Your task to perform on an android device: add a contact Image 0: 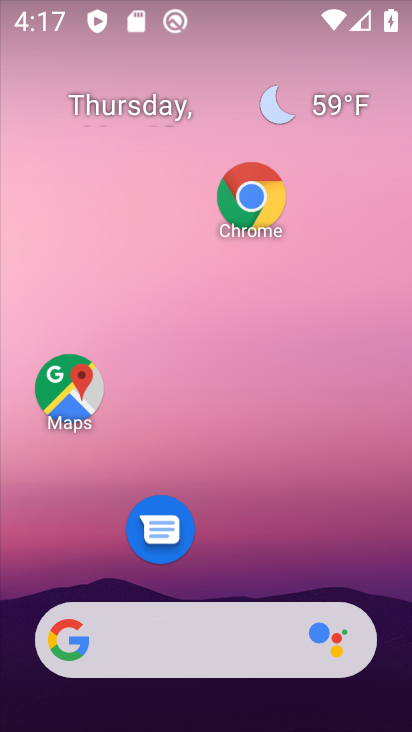
Step 0: drag from (221, 572) to (231, 117)
Your task to perform on an android device: add a contact Image 1: 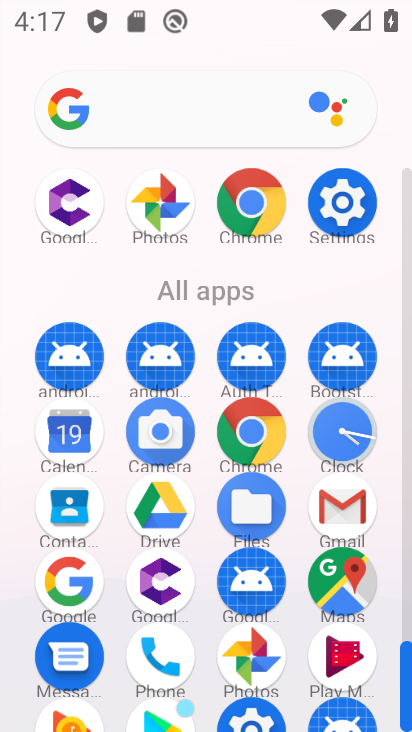
Step 1: click (66, 500)
Your task to perform on an android device: add a contact Image 2: 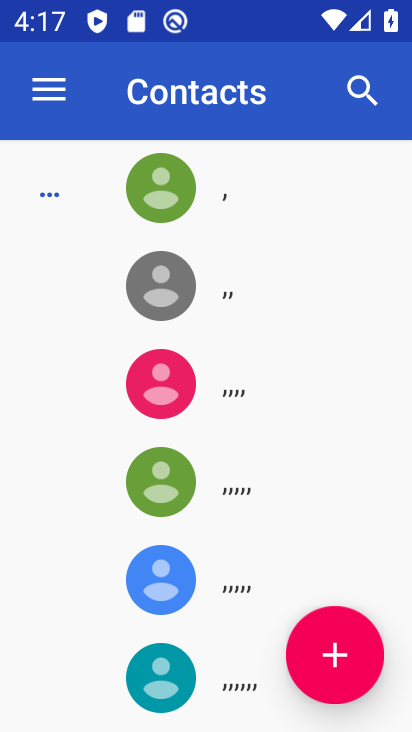
Step 2: click (337, 665)
Your task to perform on an android device: add a contact Image 3: 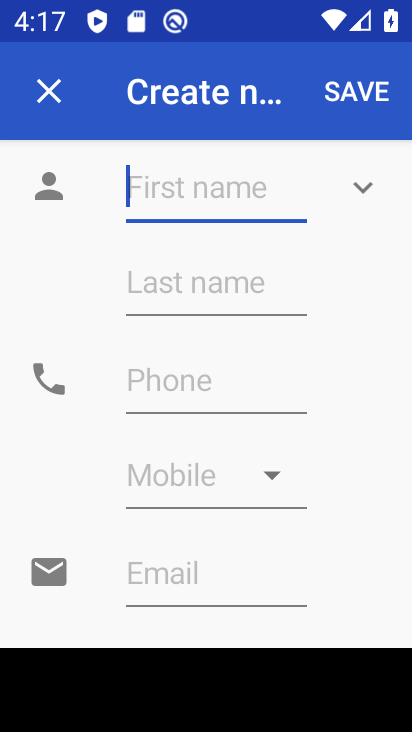
Step 3: type "nbygtf"
Your task to perform on an android device: add a contact Image 4: 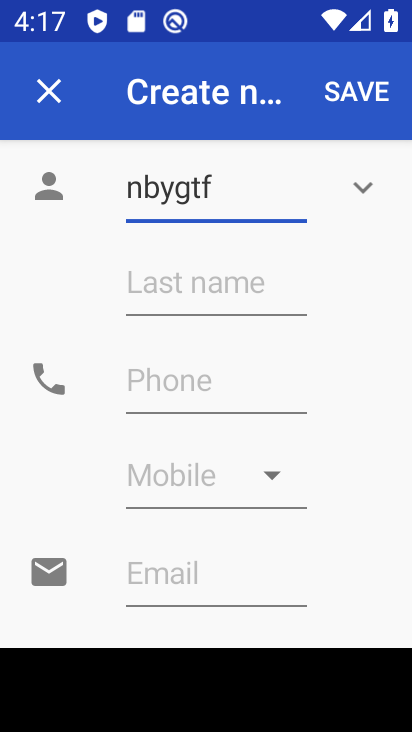
Step 4: click (351, 88)
Your task to perform on an android device: add a contact Image 5: 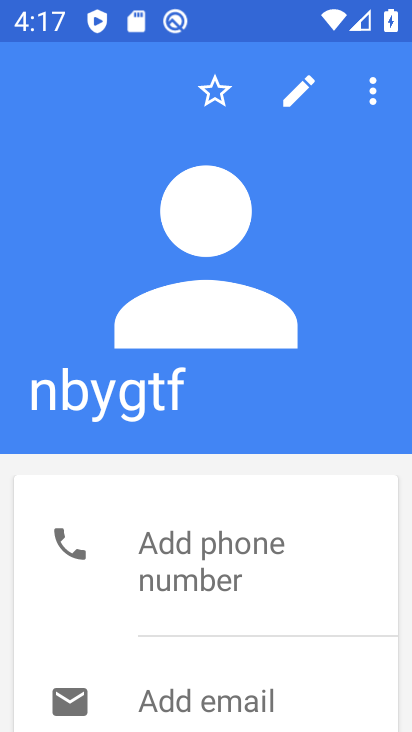
Step 5: task complete